Your task to perform on an android device: open a bookmark in the chrome app Image 0: 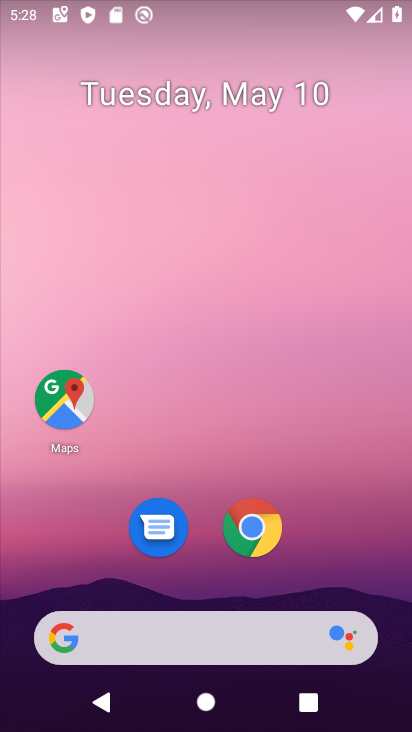
Step 0: click (261, 526)
Your task to perform on an android device: open a bookmark in the chrome app Image 1: 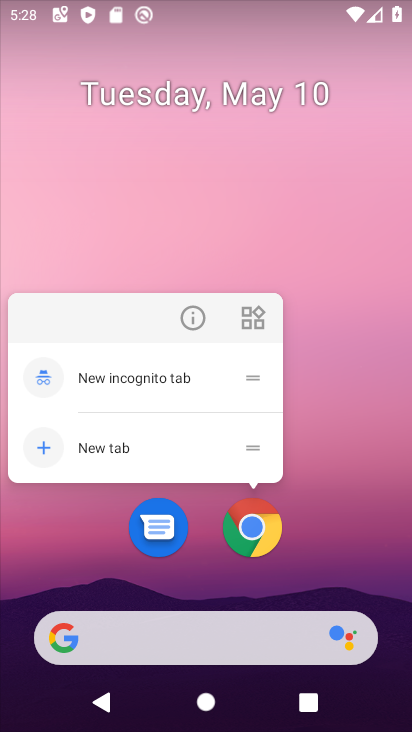
Step 1: click (252, 527)
Your task to perform on an android device: open a bookmark in the chrome app Image 2: 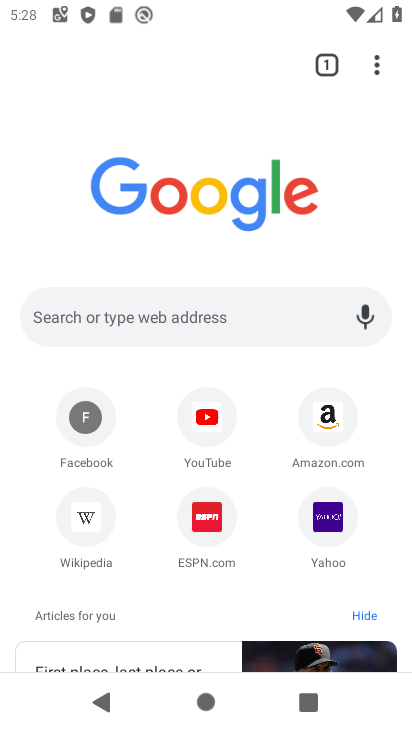
Step 2: click (378, 66)
Your task to perform on an android device: open a bookmark in the chrome app Image 3: 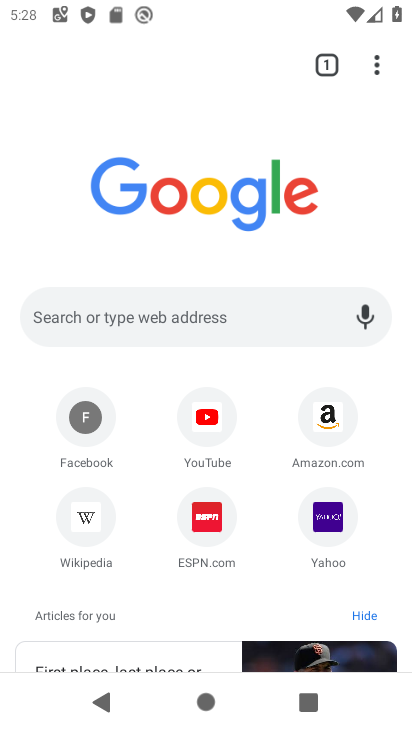
Step 3: click (371, 63)
Your task to perform on an android device: open a bookmark in the chrome app Image 4: 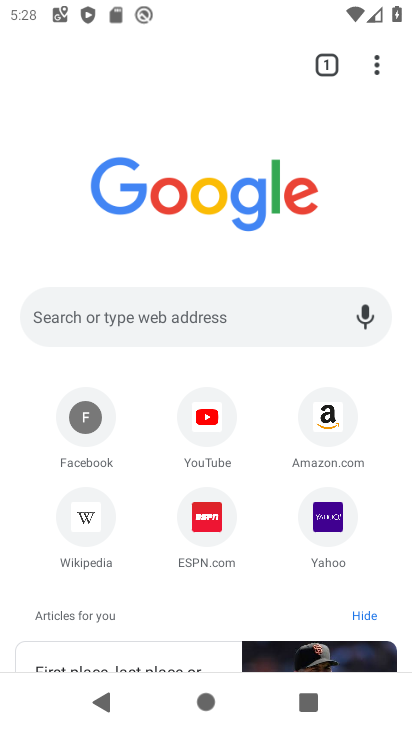
Step 4: click (378, 60)
Your task to perform on an android device: open a bookmark in the chrome app Image 5: 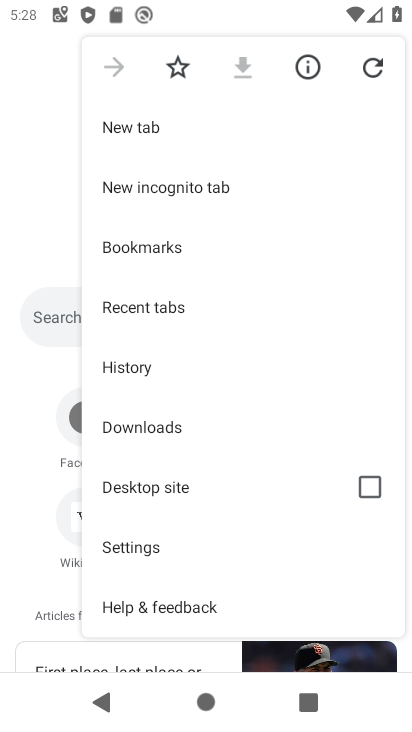
Step 5: click (163, 247)
Your task to perform on an android device: open a bookmark in the chrome app Image 6: 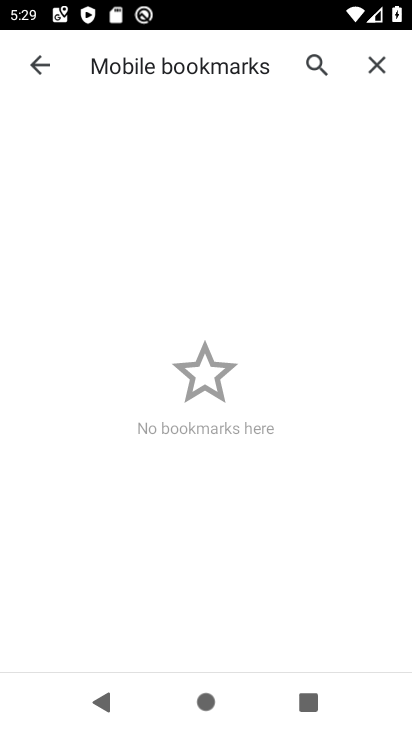
Step 6: task complete